Your task to perform on an android device: Do I have any events this weekend? Image 0: 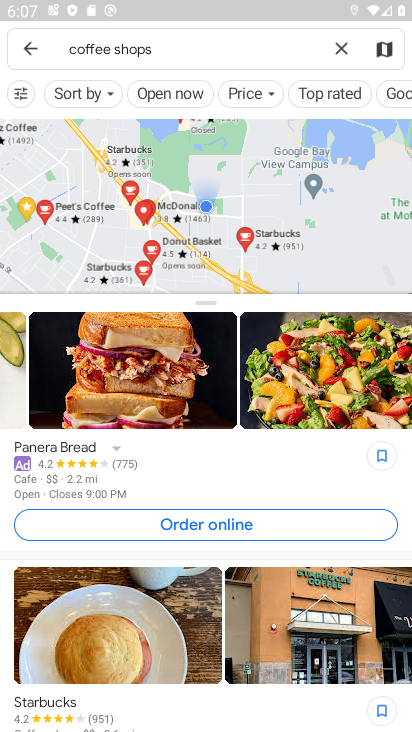
Step 0: press back button
Your task to perform on an android device: Do I have any events this weekend? Image 1: 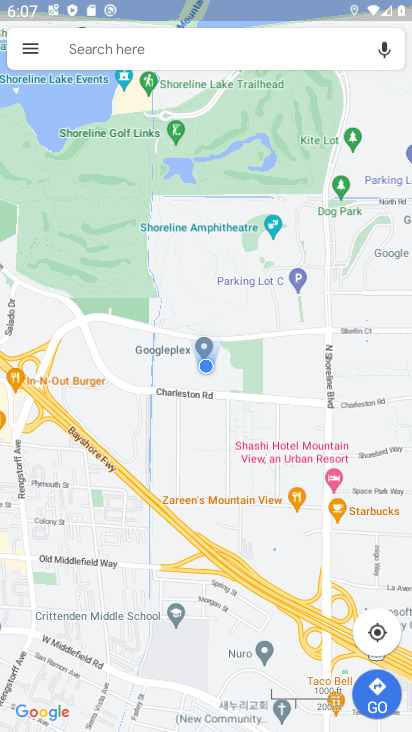
Step 1: press back button
Your task to perform on an android device: Do I have any events this weekend? Image 2: 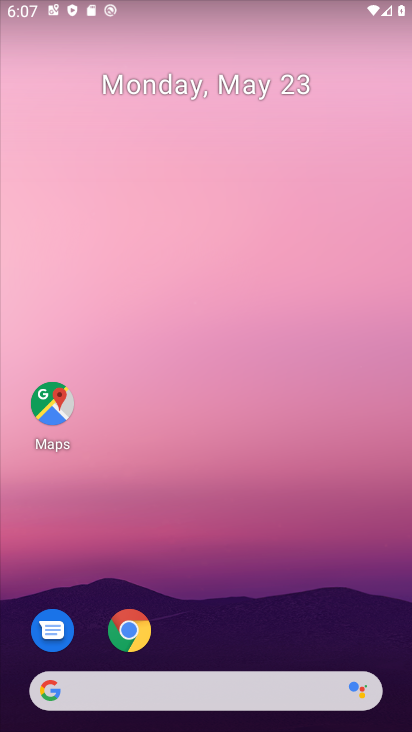
Step 2: drag from (276, 605) to (252, 0)
Your task to perform on an android device: Do I have any events this weekend? Image 3: 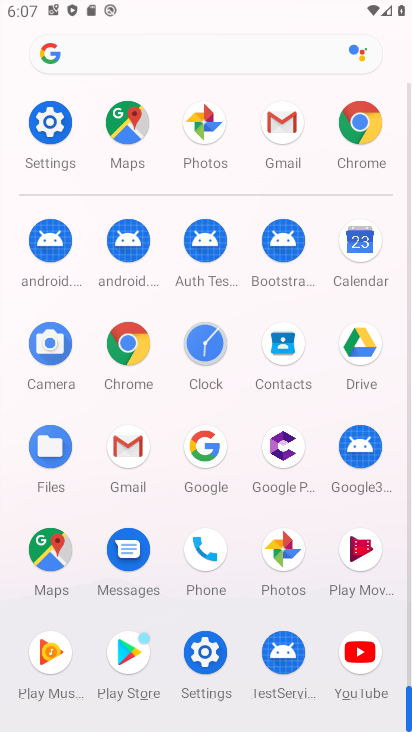
Step 3: drag from (3, 466) to (3, 153)
Your task to perform on an android device: Do I have any events this weekend? Image 4: 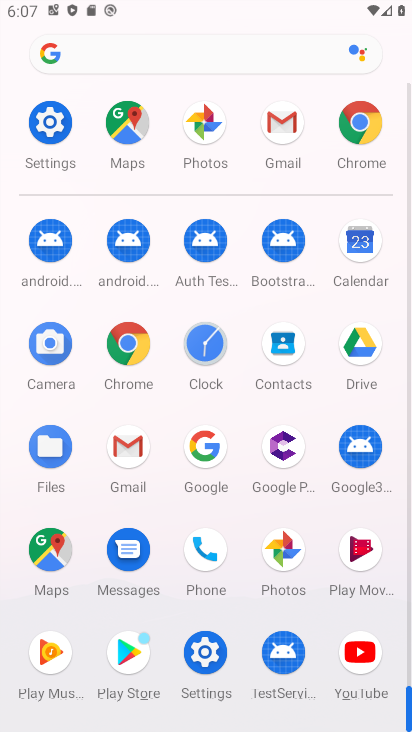
Step 4: click (353, 235)
Your task to perform on an android device: Do I have any events this weekend? Image 5: 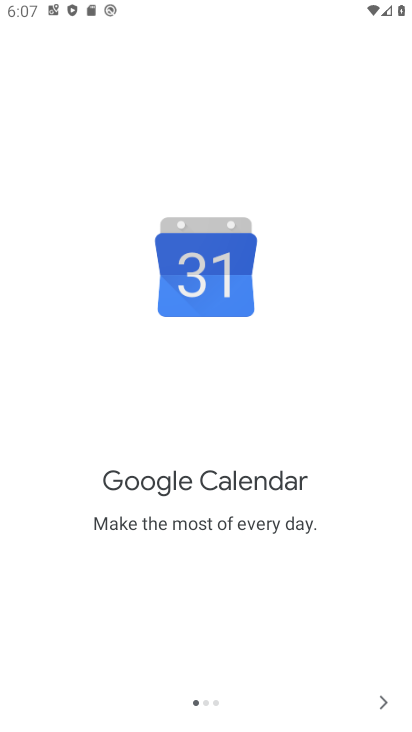
Step 5: click (377, 692)
Your task to perform on an android device: Do I have any events this weekend? Image 6: 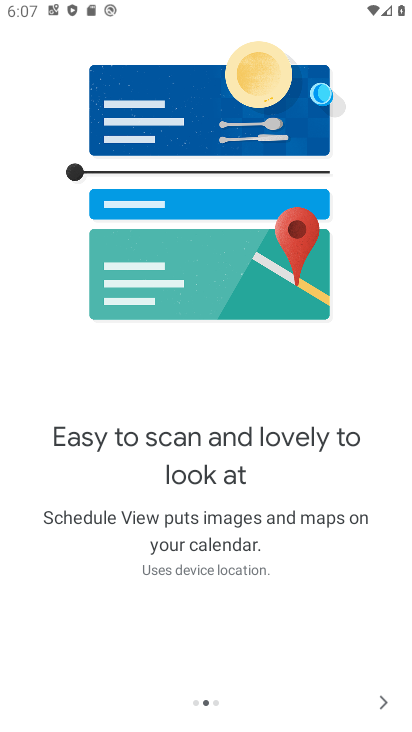
Step 6: click (377, 692)
Your task to perform on an android device: Do I have any events this weekend? Image 7: 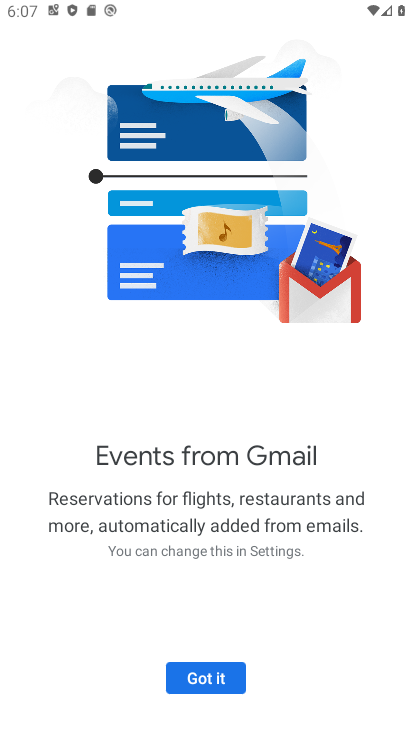
Step 7: click (207, 680)
Your task to perform on an android device: Do I have any events this weekend? Image 8: 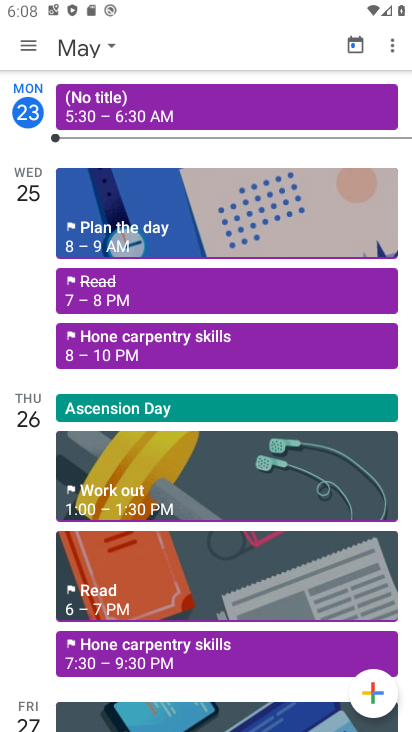
Step 8: click (84, 57)
Your task to perform on an android device: Do I have any events this weekend? Image 9: 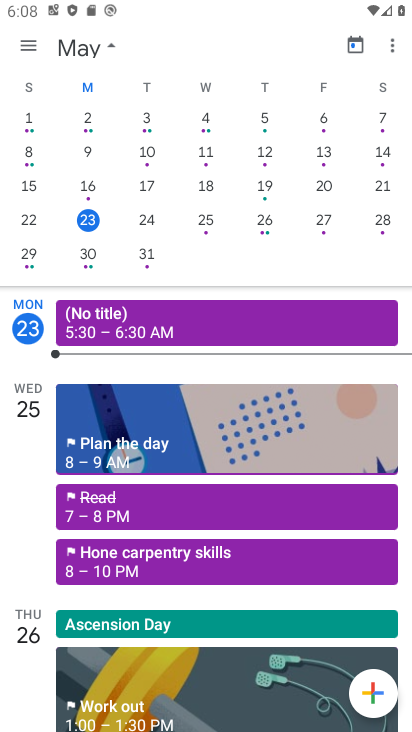
Step 9: click (375, 223)
Your task to perform on an android device: Do I have any events this weekend? Image 10: 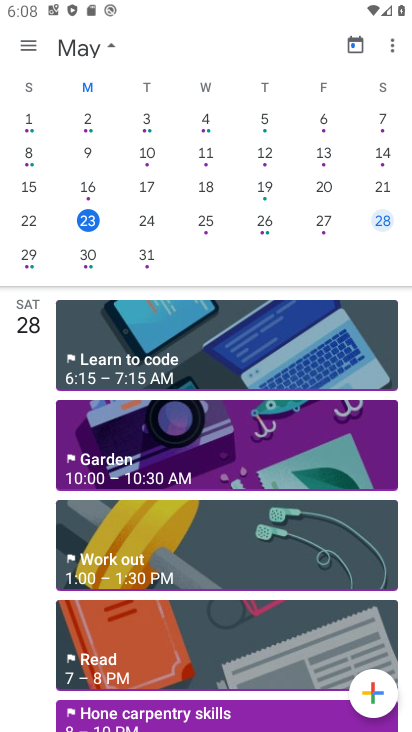
Step 10: click (31, 42)
Your task to perform on an android device: Do I have any events this weekend? Image 11: 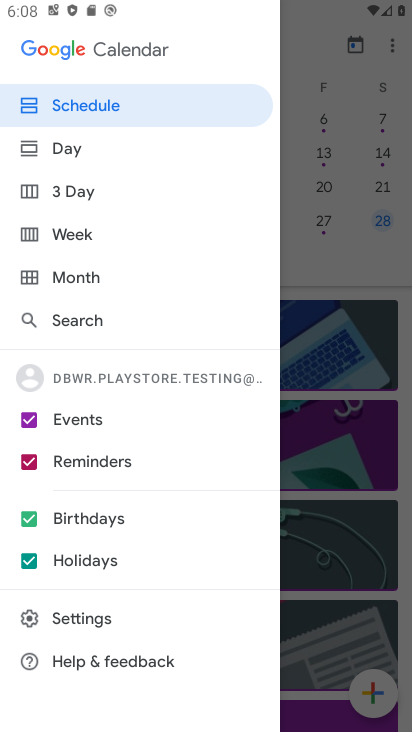
Step 11: click (83, 149)
Your task to perform on an android device: Do I have any events this weekend? Image 12: 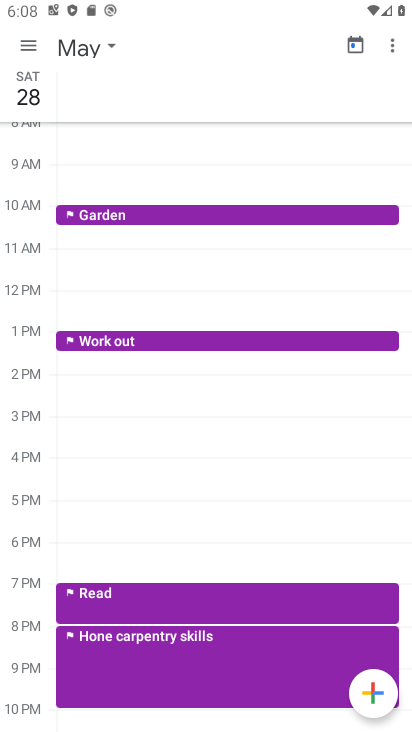
Step 12: task complete